Your task to perform on an android device: Search for Mexican restaurants on Maps Image 0: 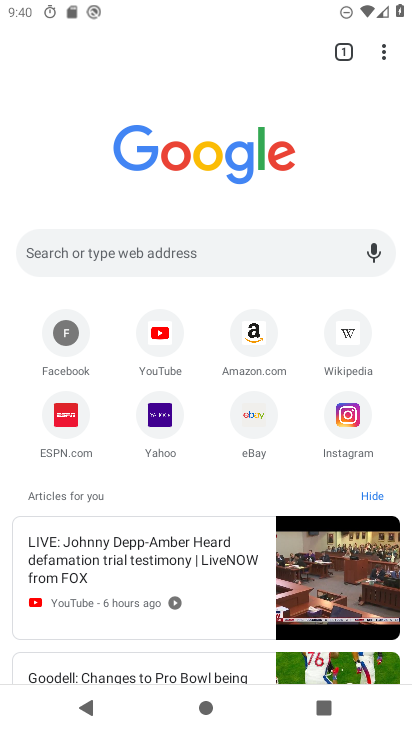
Step 0: press home button
Your task to perform on an android device: Search for Mexican restaurants on Maps Image 1: 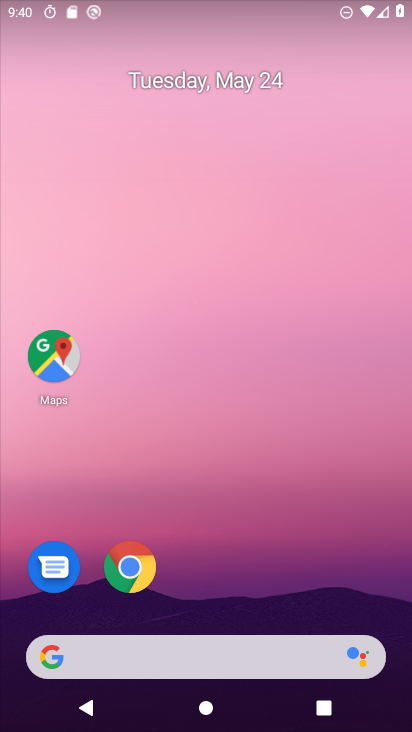
Step 1: click (72, 357)
Your task to perform on an android device: Search for Mexican restaurants on Maps Image 2: 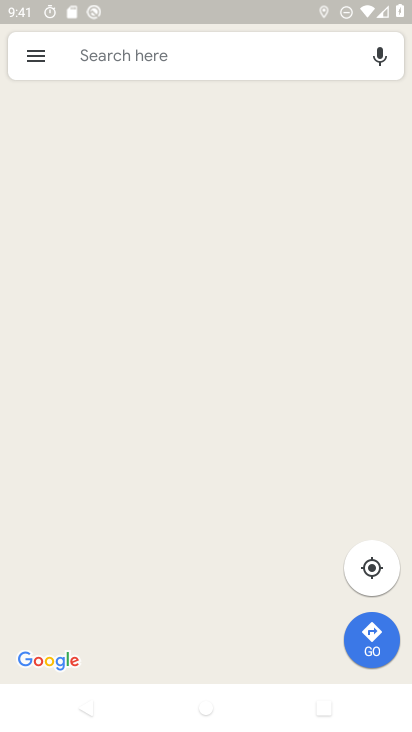
Step 2: click (222, 51)
Your task to perform on an android device: Search for Mexican restaurants on Maps Image 3: 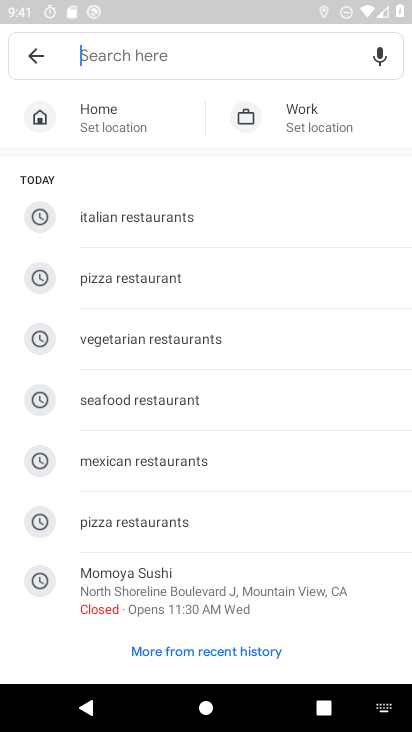
Step 3: type "Mexican restaurants"
Your task to perform on an android device: Search for Mexican restaurants on Maps Image 4: 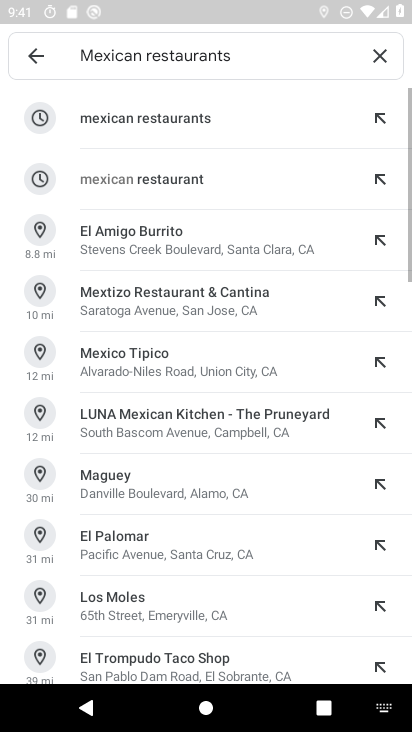
Step 4: click (173, 108)
Your task to perform on an android device: Search for Mexican restaurants on Maps Image 5: 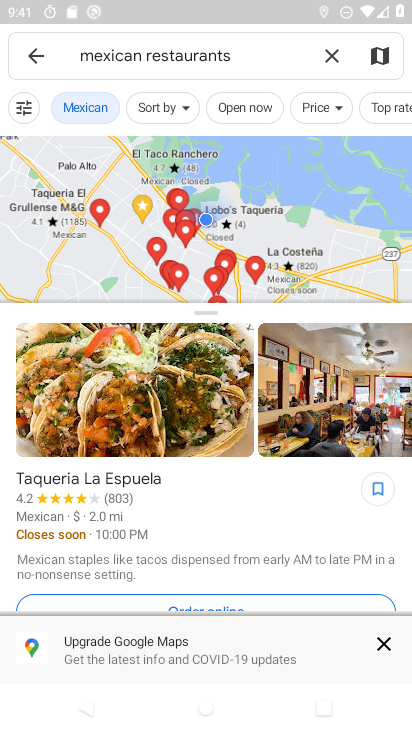
Step 5: task complete